Your task to perform on an android device: Open calendar and show me the second week of next month Image 0: 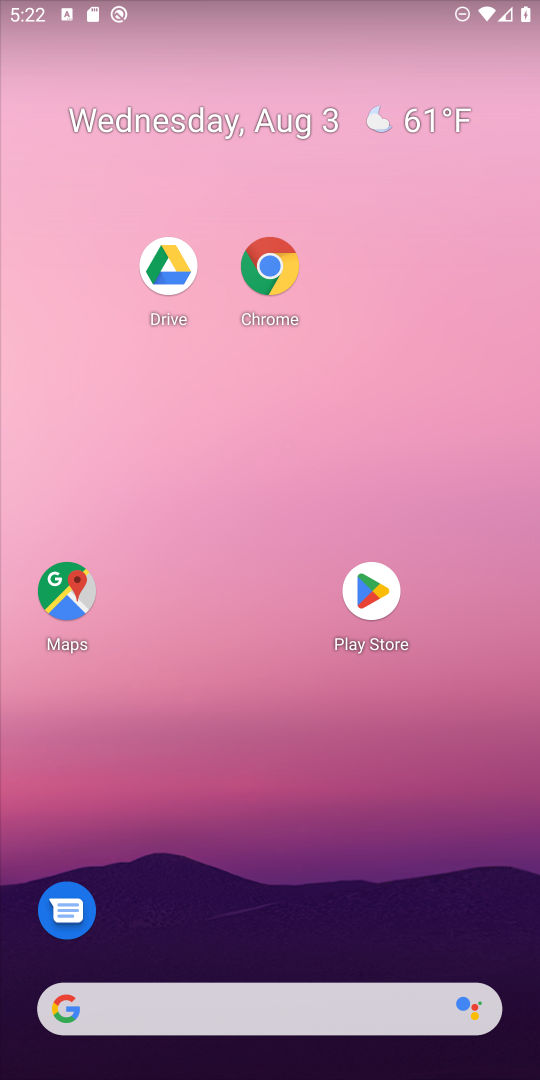
Step 0: press home button
Your task to perform on an android device: Open calendar and show me the second week of next month Image 1: 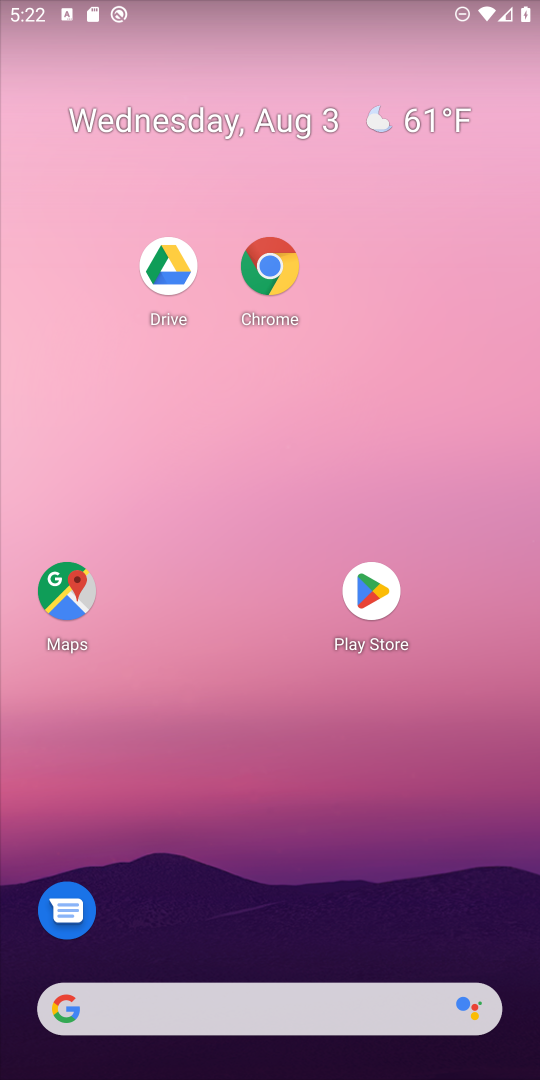
Step 1: drag from (185, 975) to (408, 20)
Your task to perform on an android device: Open calendar and show me the second week of next month Image 2: 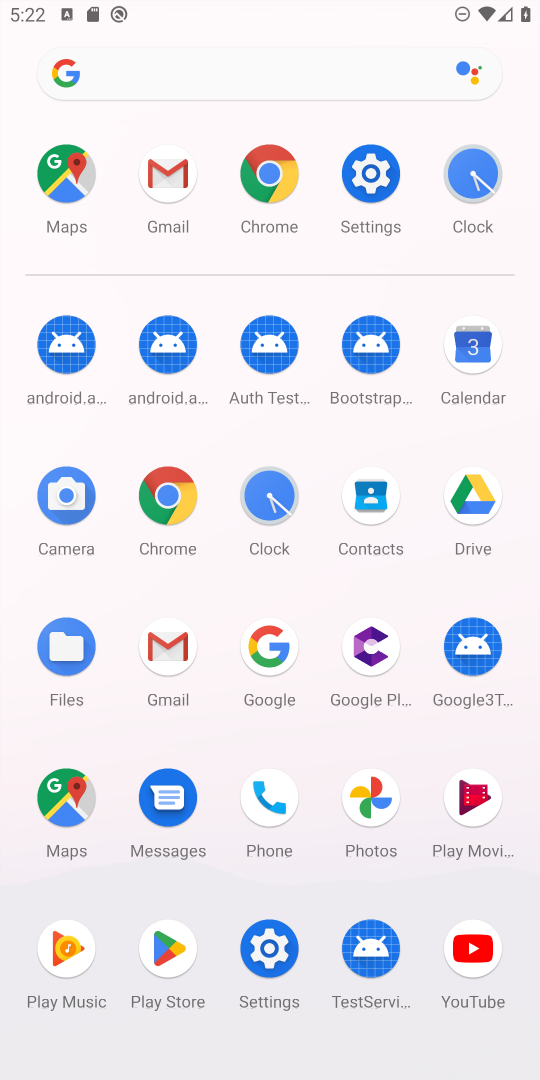
Step 2: click (461, 366)
Your task to perform on an android device: Open calendar and show me the second week of next month Image 3: 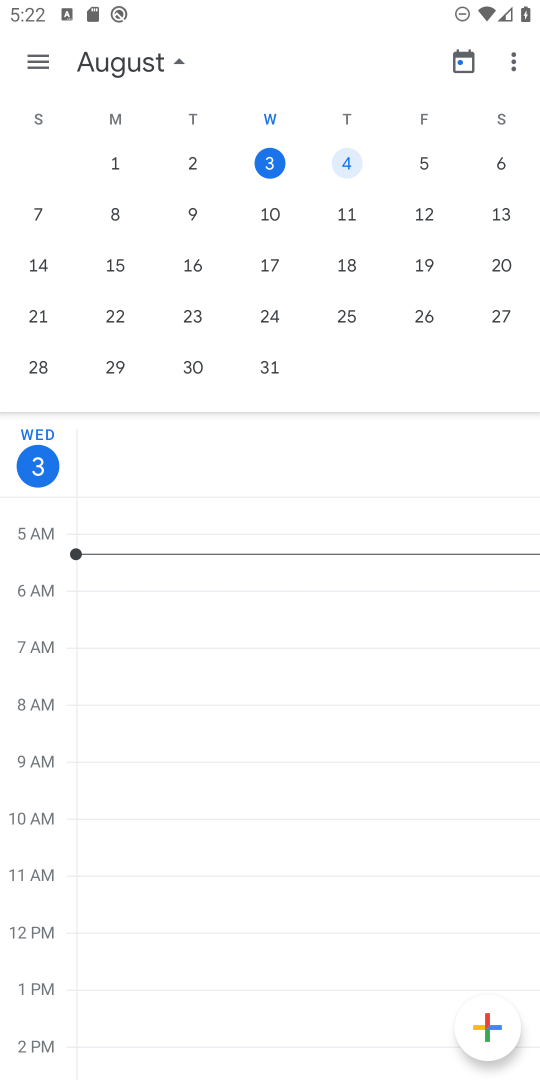
Step 3: click (260, 209)
Your task to perform on an android device: Open calendar and show me the second week of next month Image 4: 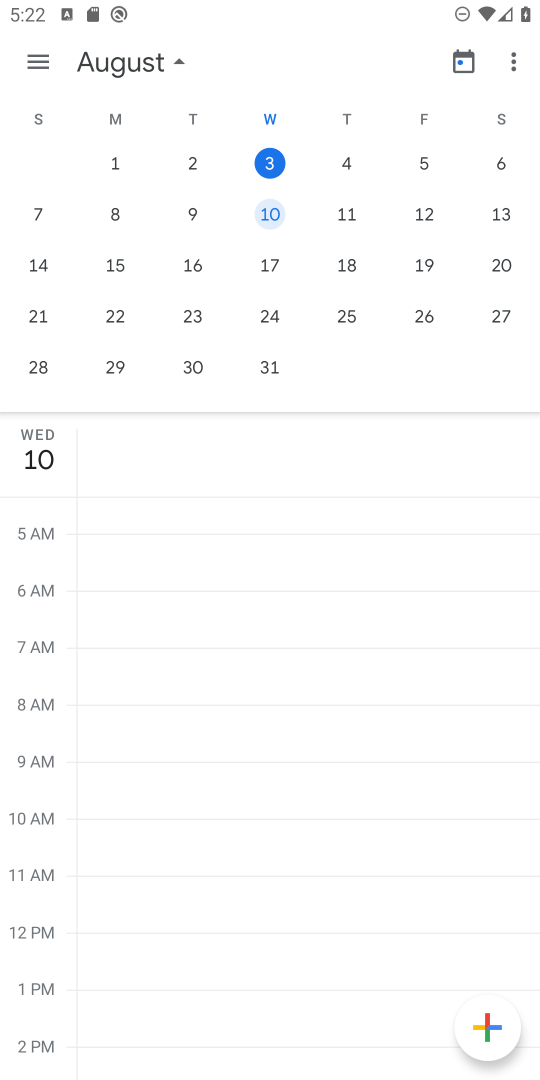
Step 4: drag from (482, 278) to (38, 326)
Your task to perform on an android device: Open calendar and show me the second week of next month Image 5: 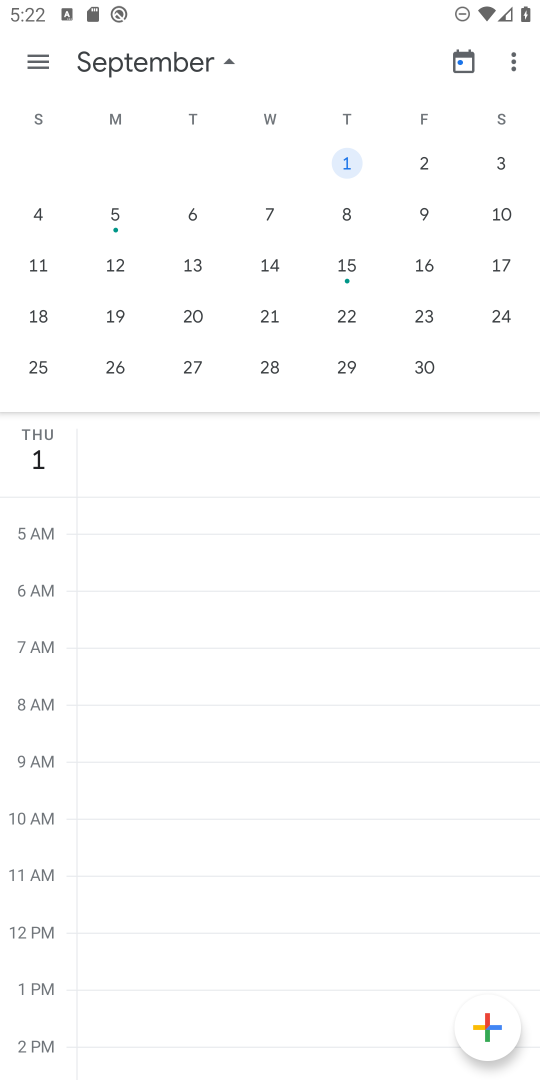
Step 5: click (282, 214)
Your task to perform on an android device: Open calendar and show me the second week of next month Image 6: 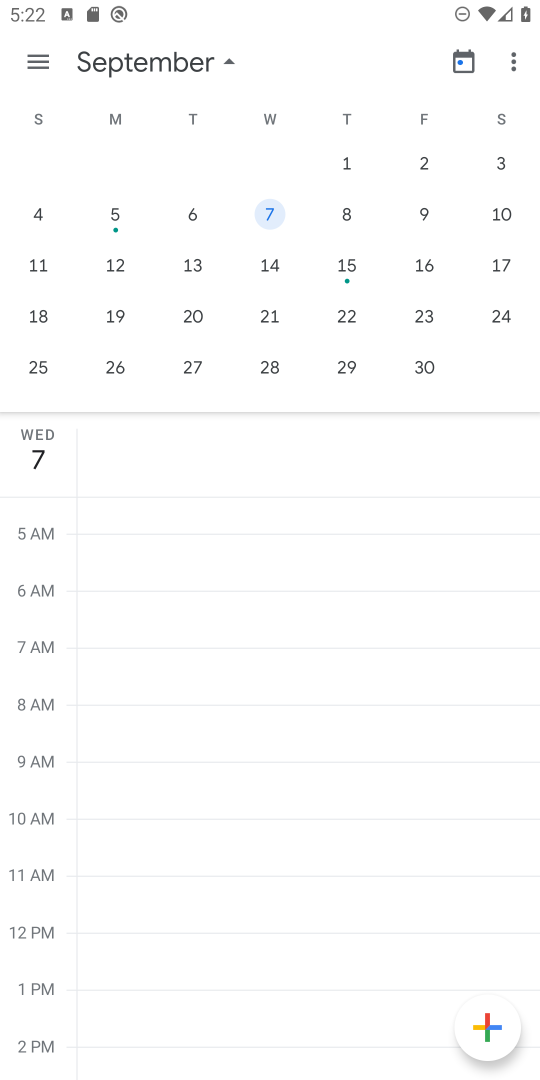
Step 6: click (56, 55)
Your task to perform on an android device: Open calendar and show me the second week of next month Image 7: 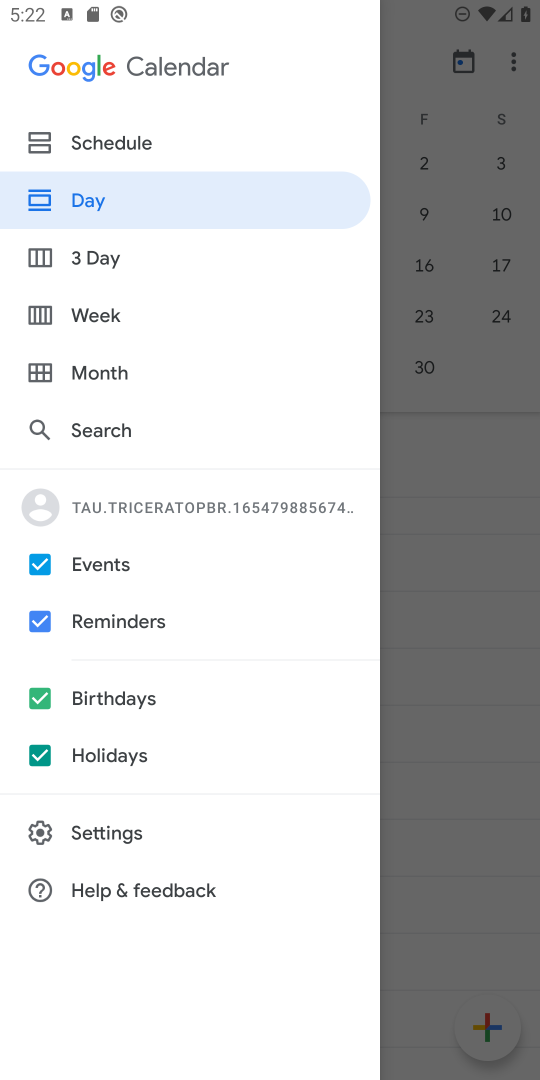
Step 7: click (111, 316)
Your task to perform on an android device: Open calendar and show me the second week of next month Image 8: 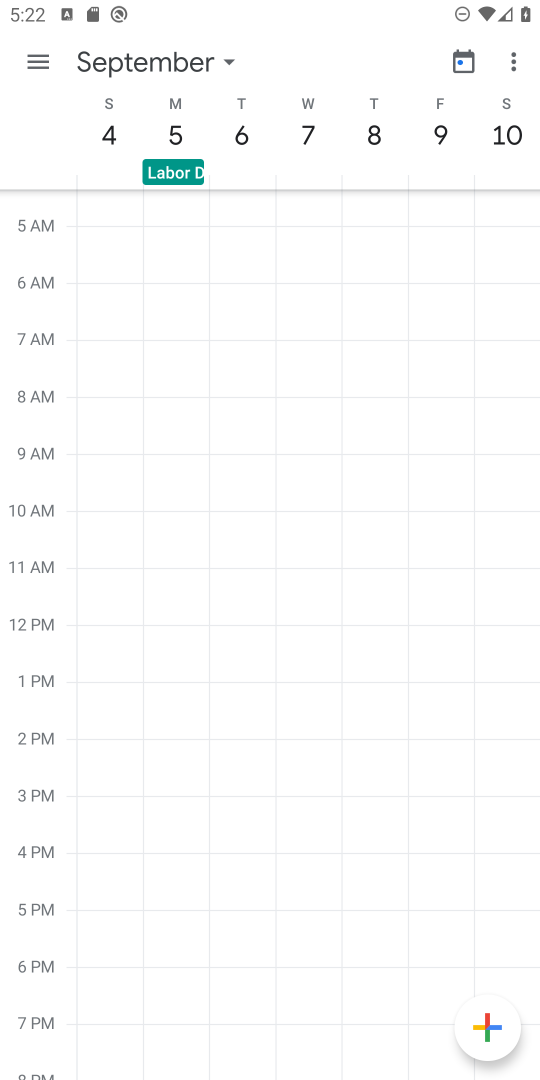
Step 8: task complete